Your task to perform on an android device: open a new tab in the chrome app Image 0: 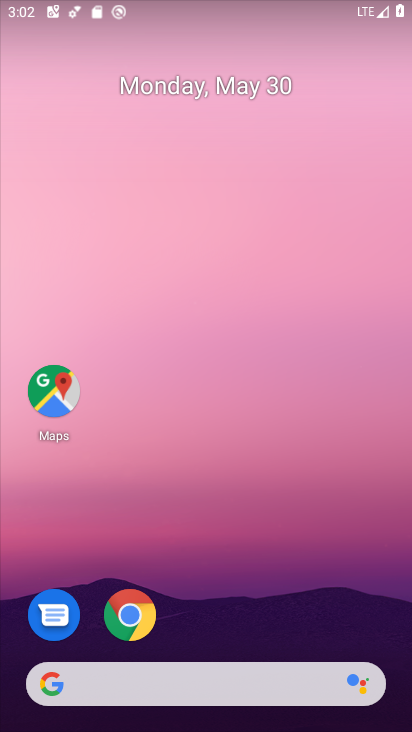
Step 0: click (143, 610)
Your task to perform on an android device: open a new tab in the chrome app Image 1: 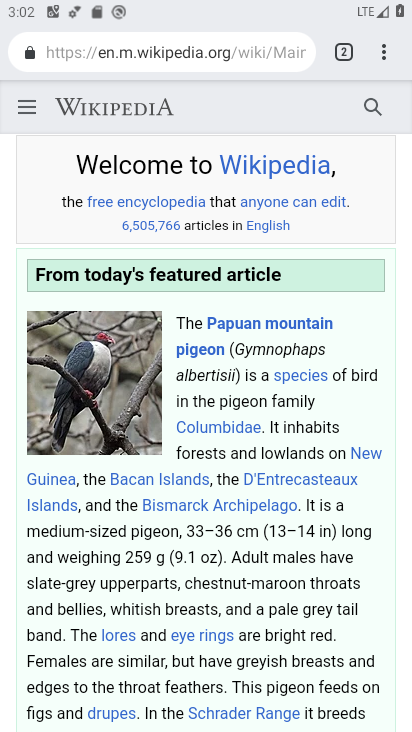
Step 1: click (384, 44)
Your task to perform on an android device: open a new tab in the chrome app Image 2: 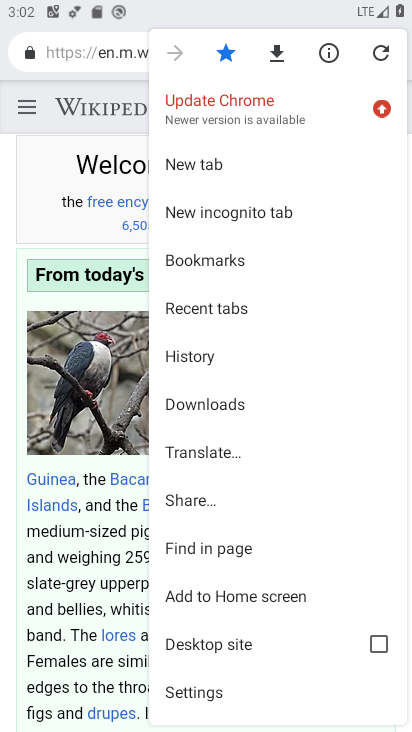
Step 2: click (263, 162)
Your task to perform on an android device: open a new tab in the chrome app Image 3: 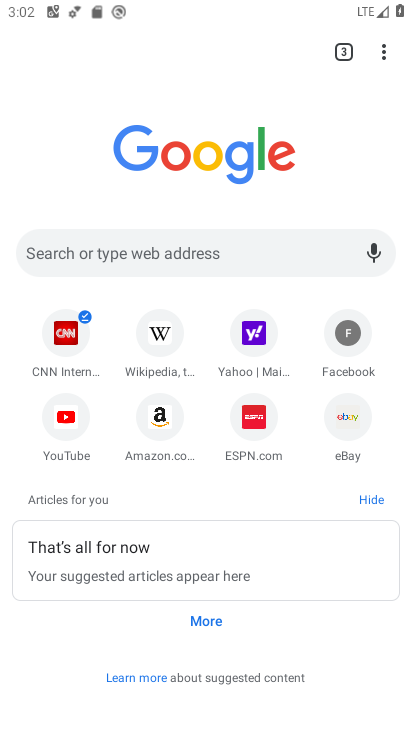
Step 3: task complete